Your task to perform on an android device: Search for seafood restaurants on Google Maps Image 0: 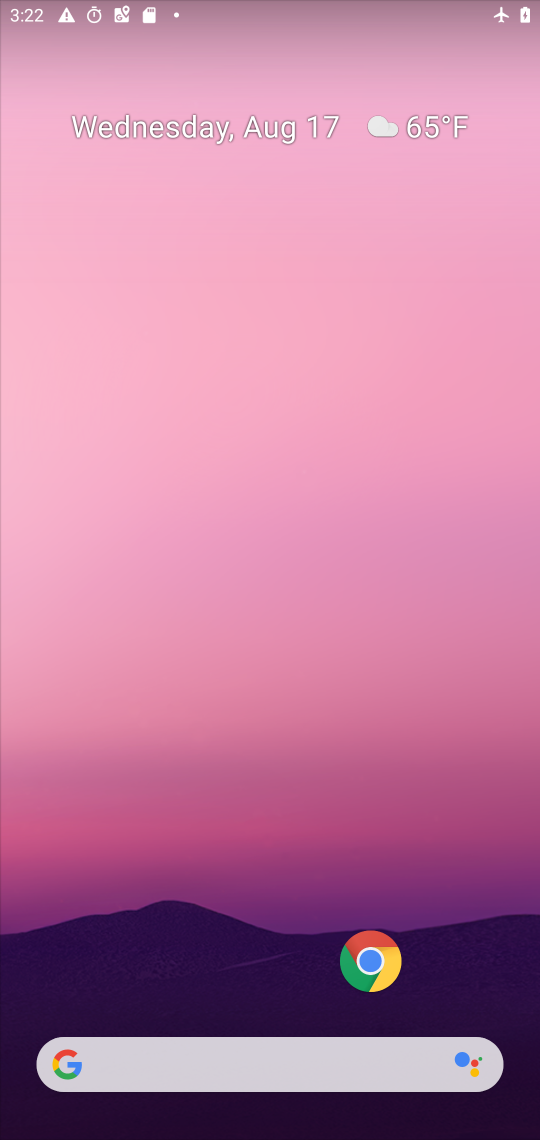
Step 0: drag from (270, 992) to (254, 213)
Your task to perform on an android device: Search for seafood restaurants on Google Maps Image 1: 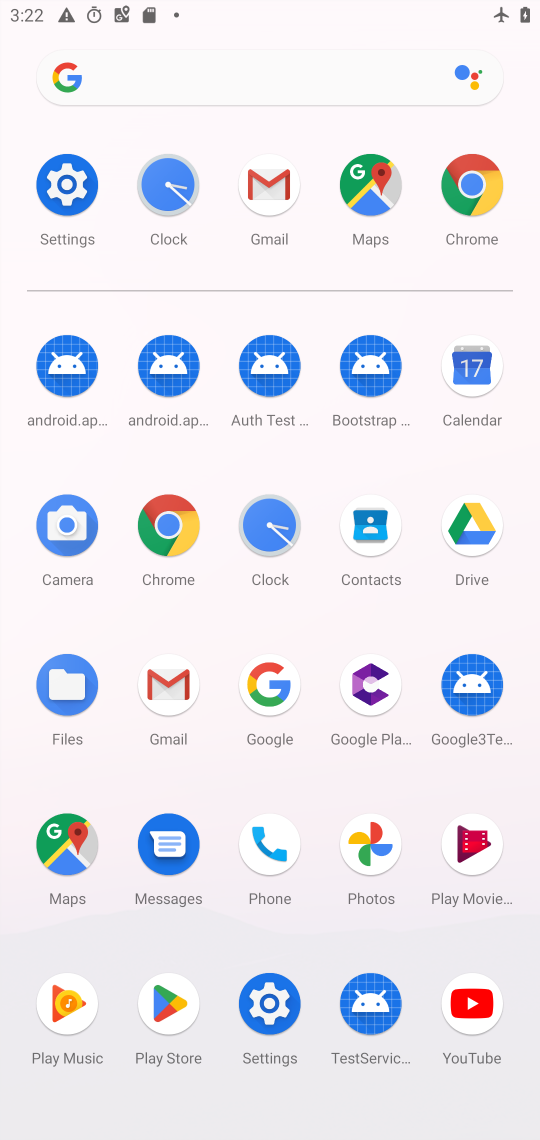
Step 1: click (71, 865)
Your task to perform on an android device: Search for seafood restaurants on Google Maps Image 2: 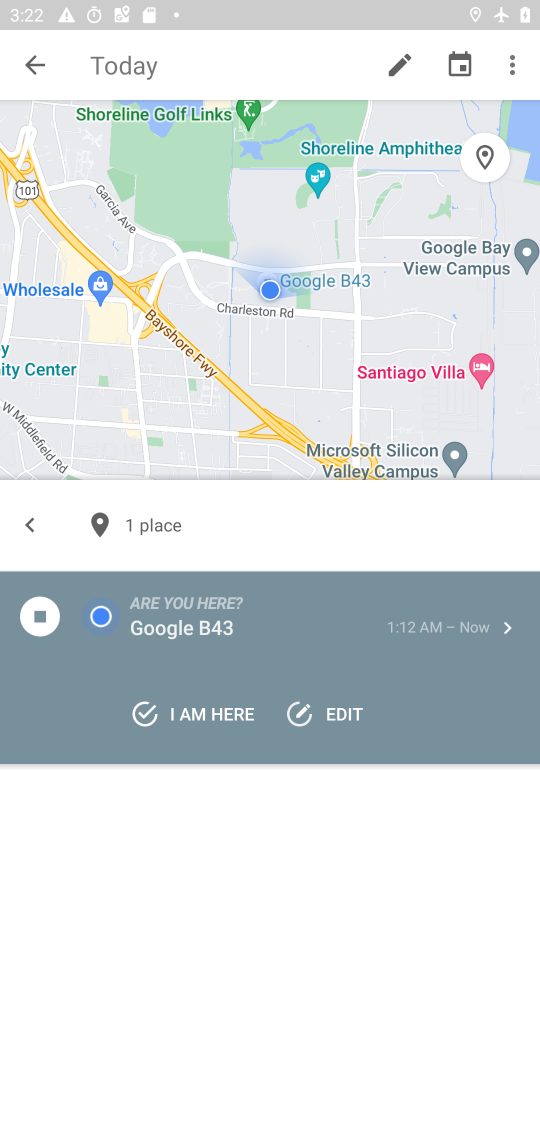
Step 2: click (46, 68)
Your task to perform on an android device: Search for seafood restaurants on Google Maps Image 3: 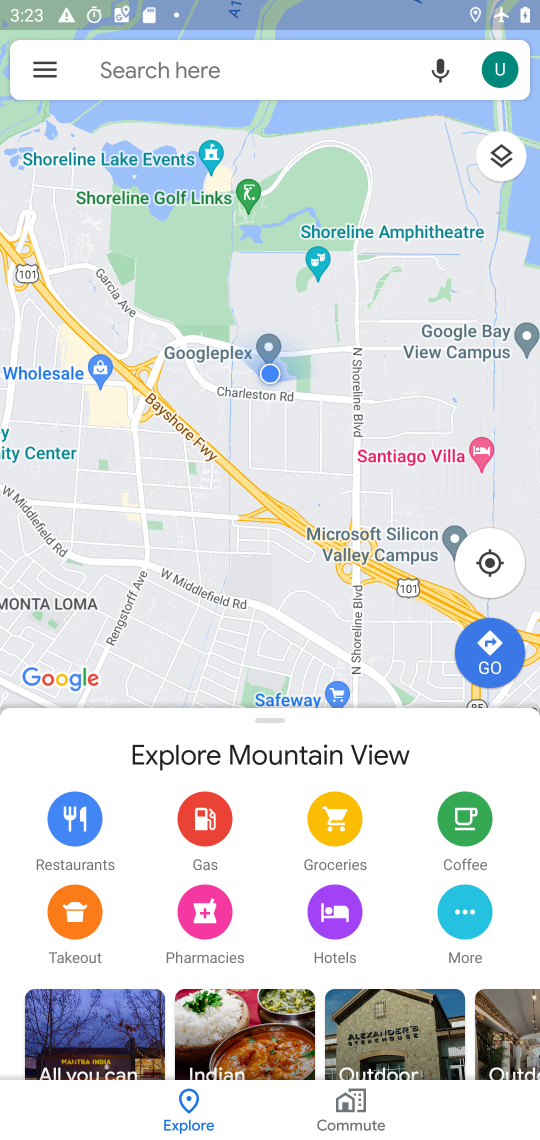
Step 3: click (171, 69)
Your task to perform on an android device: Search for seafood restaurants on Google Maps Image 4: 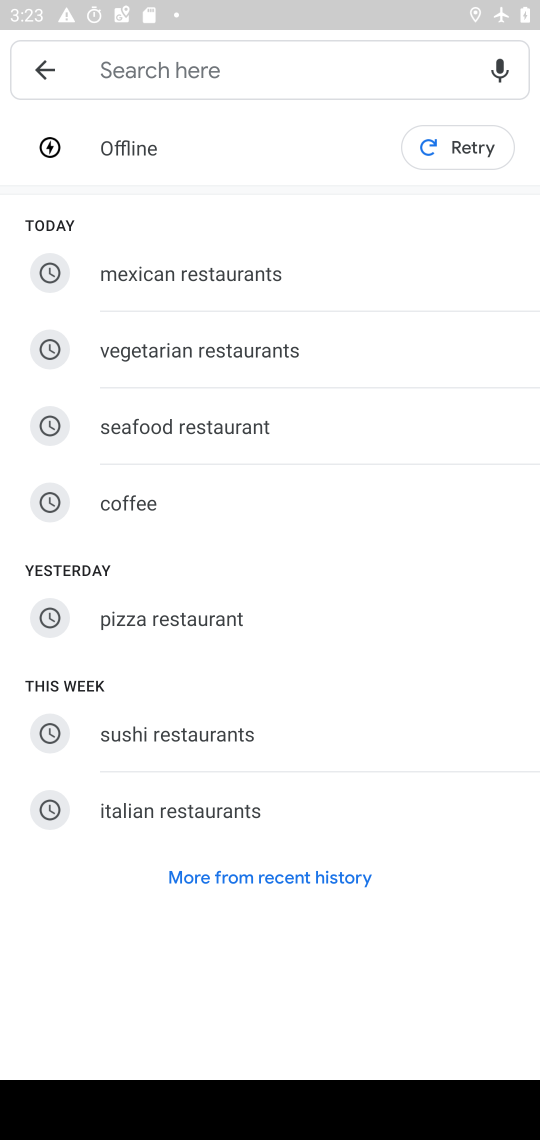
Step 4: click (173, 74)
Your task to perform on an android device: Search for seafood restaurants on Google Maps Image 5: 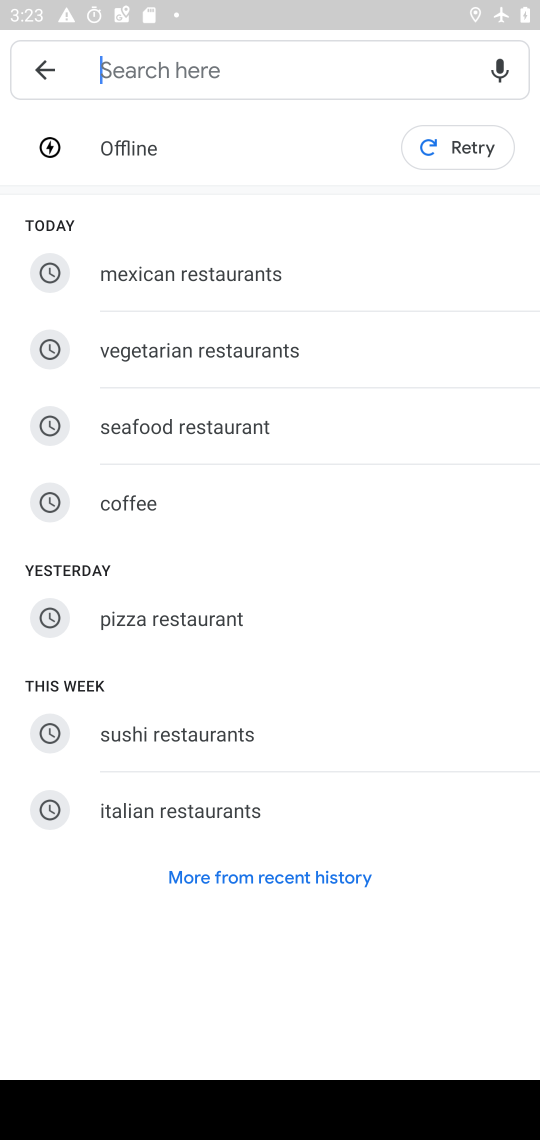
Step 5: click (152, 446)
Your task to perform on an android device: Search for seafood restaurants on Google Maps Image 6: 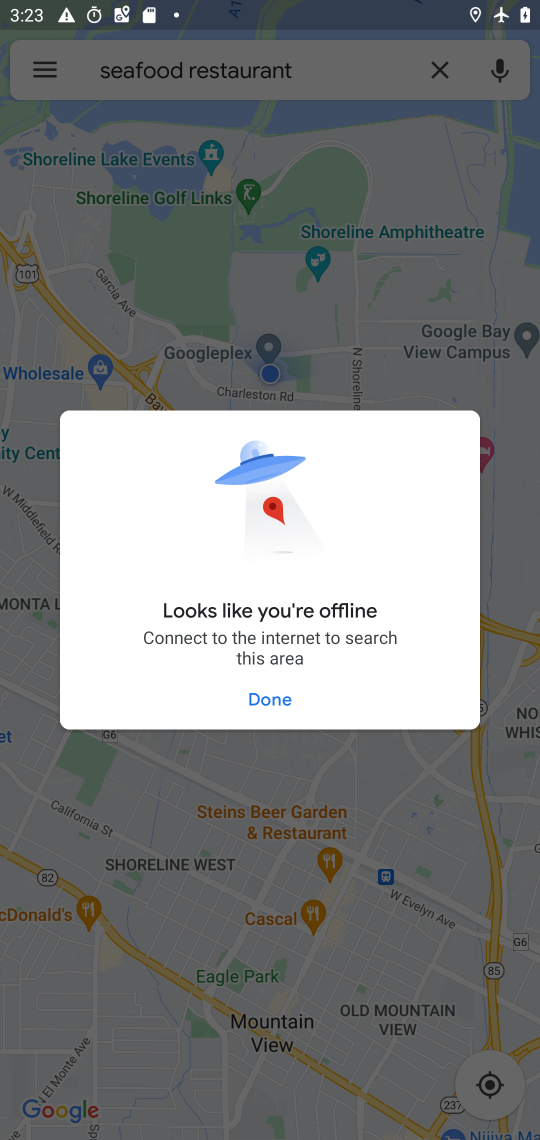
Step 6: click (283, 700)
Your task to perform on an android device: Search for seafood restaurants on Google Maps Image 7: 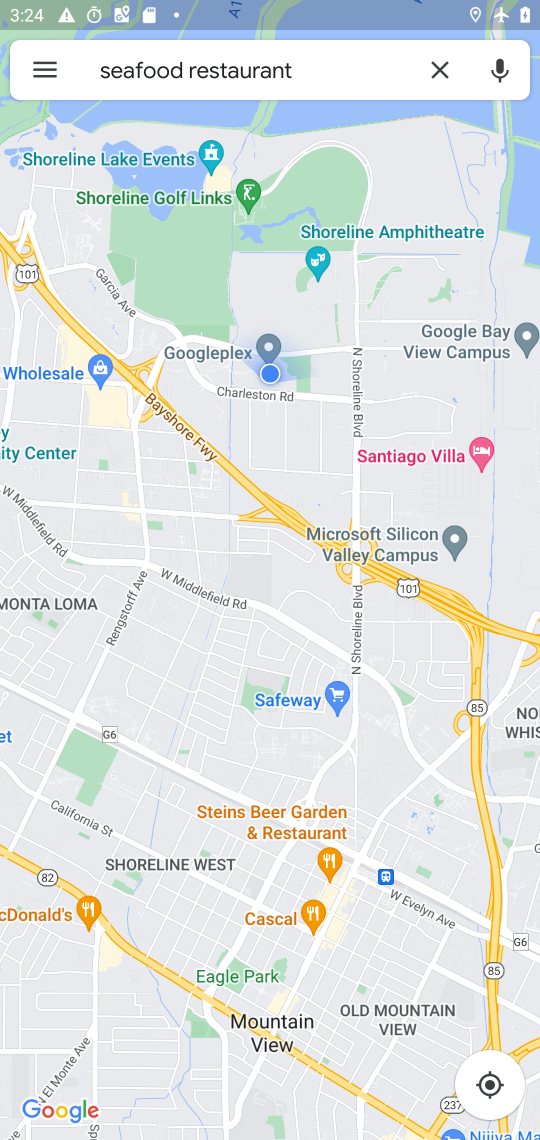
Step 7: task complete